Your task to perform on an android device: Open Wikipedia Image 0: 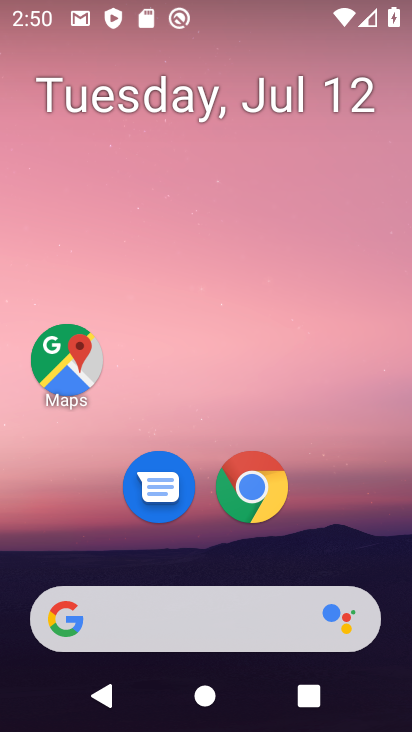
Step 0: drag from (157, 575) to (157, 206)
Your task to perform on an android device: Open Wikipedia Image 1: 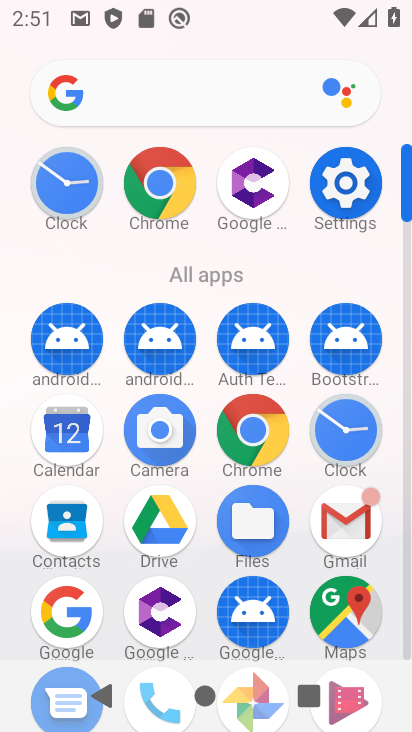
Step 1: click (160, 214)
Your task to perform on an android device: Open Wikipedia Image 2: 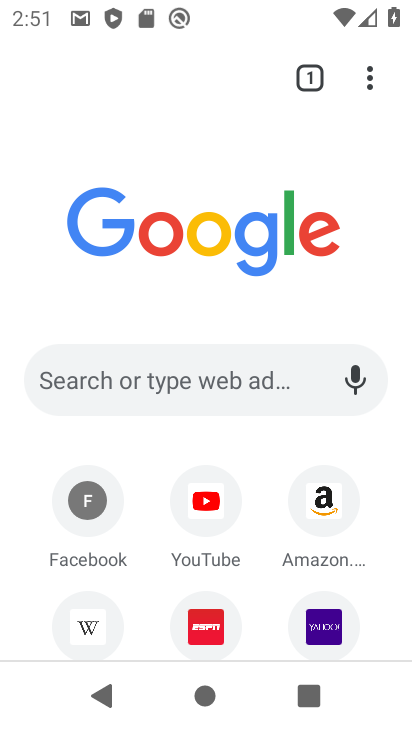
Step 2: click (107, 620)
Your task to perform on an android device: Open Wikipedia Image 3: 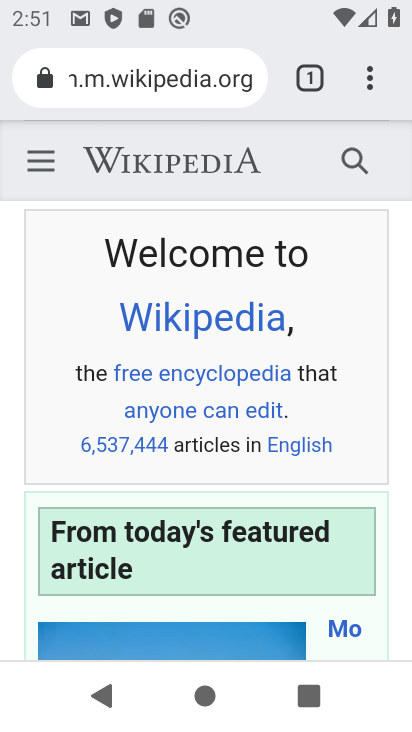
Step 3: task complete